Your task to perform on an android device: turn off data saver in the chrome app Image 0: 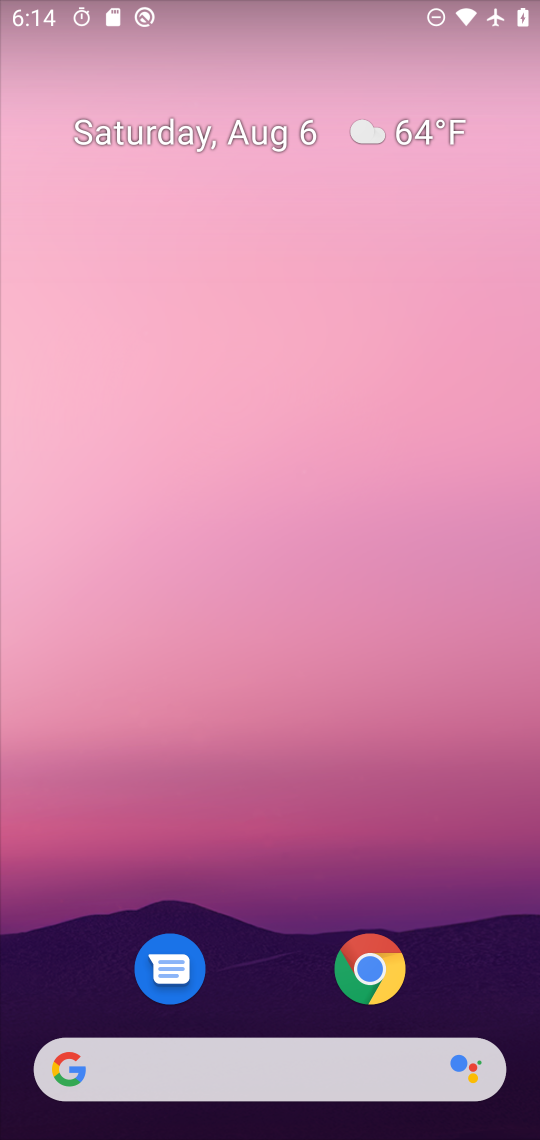
Step 0: press home button
Your task to perform on an android device: turn off data saver in the chrome app Image 1: 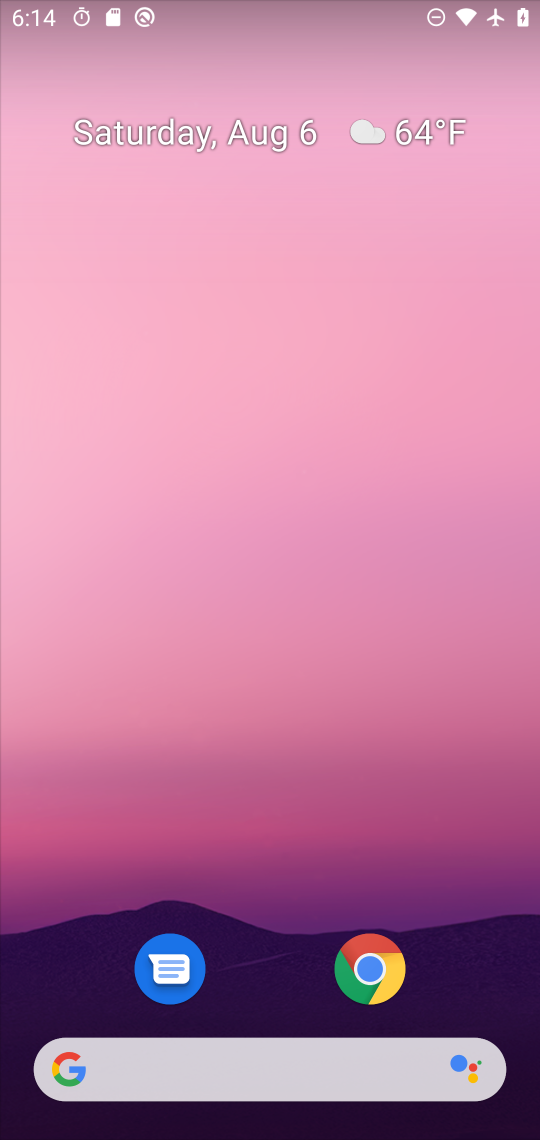
Step 1: drag from (285, 937) to (196, 210)
Your task to perform on an android device: turn off data saver in the chrome app Image 2: 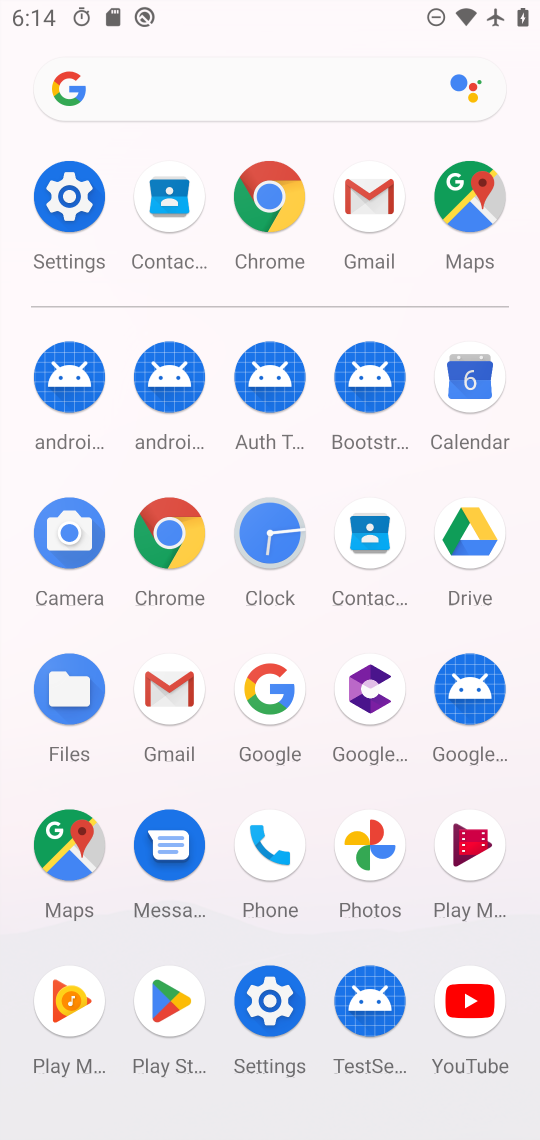
Step 2: click (260, 222)
Your task to perform on an android device: turn off data saver in the chrome app Image 3: 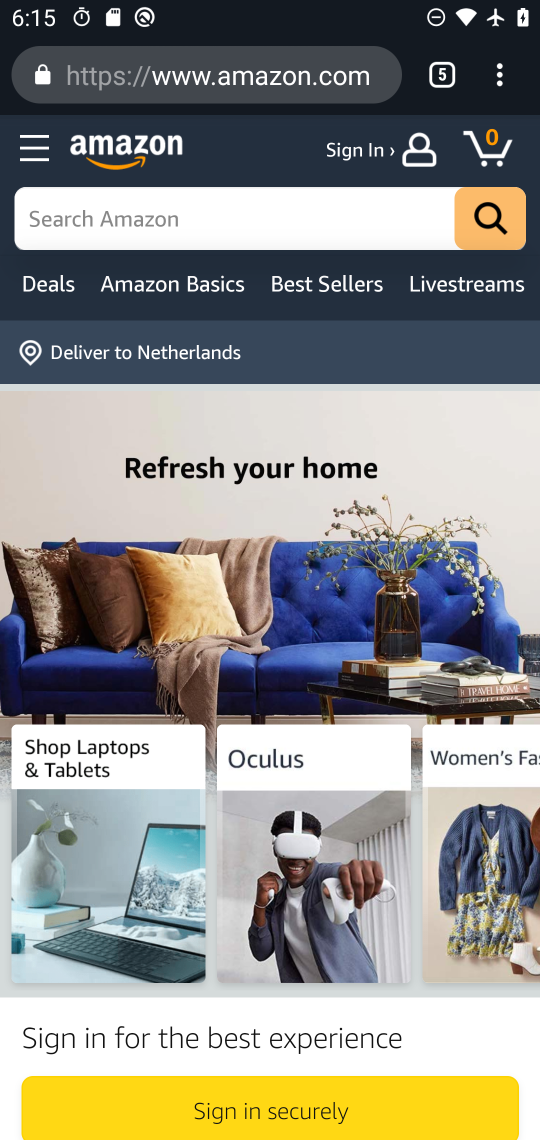
Step 3: drag from (511, 88) to (295, 988)
Your task to perform on an android device: turn off data saver in the chrome app Image 4: 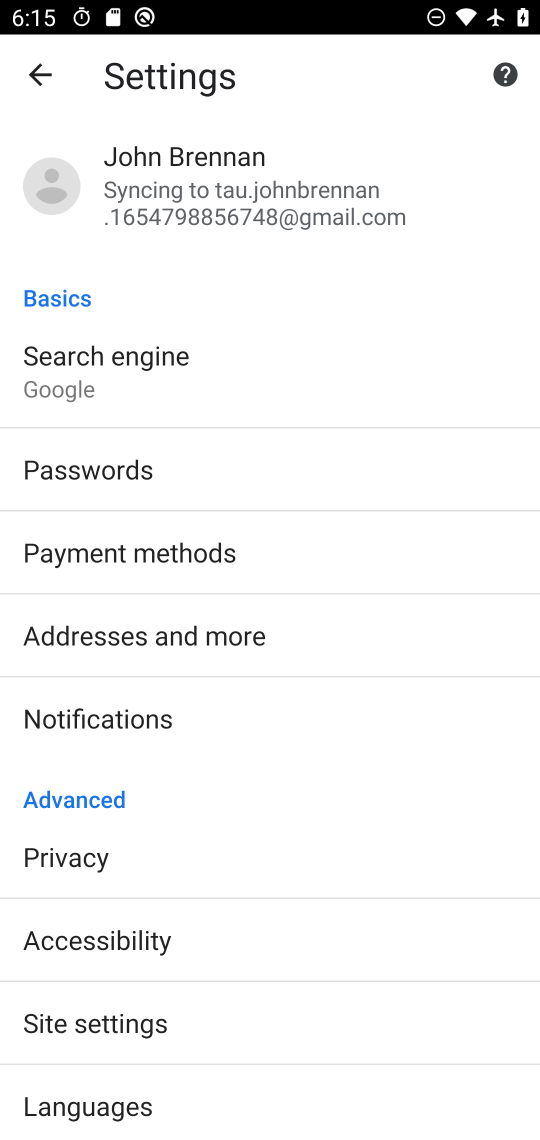
Step 4: drag from (246, 1020) to (184, 530)
Your task to perform on an android device: turn off data saver in the chrome app Image 5: 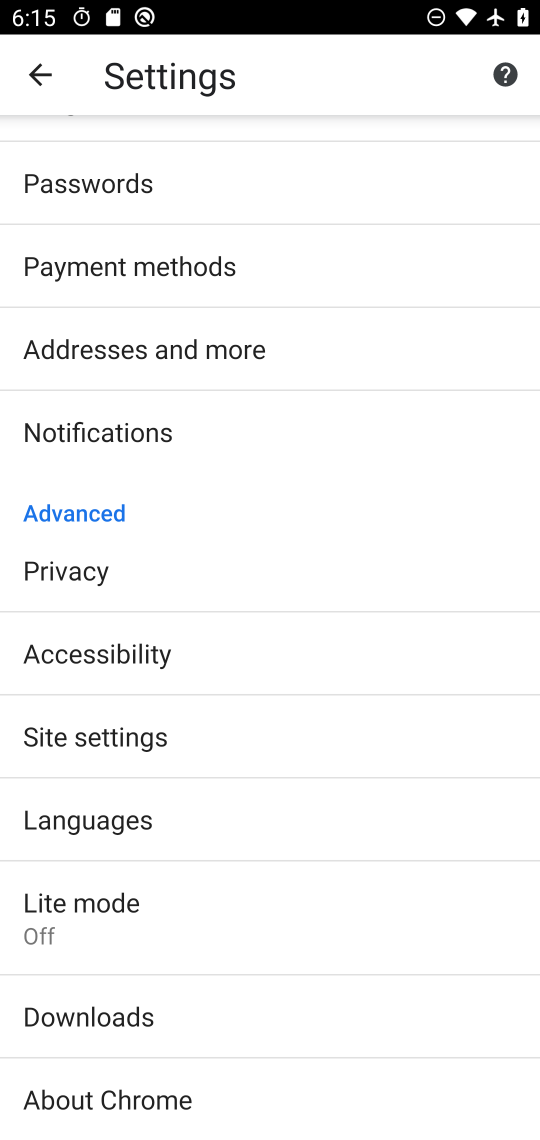
Step 5: click (63, 913)
Your task to perform on an android device: turn off data saver in the chrome app Image 6: 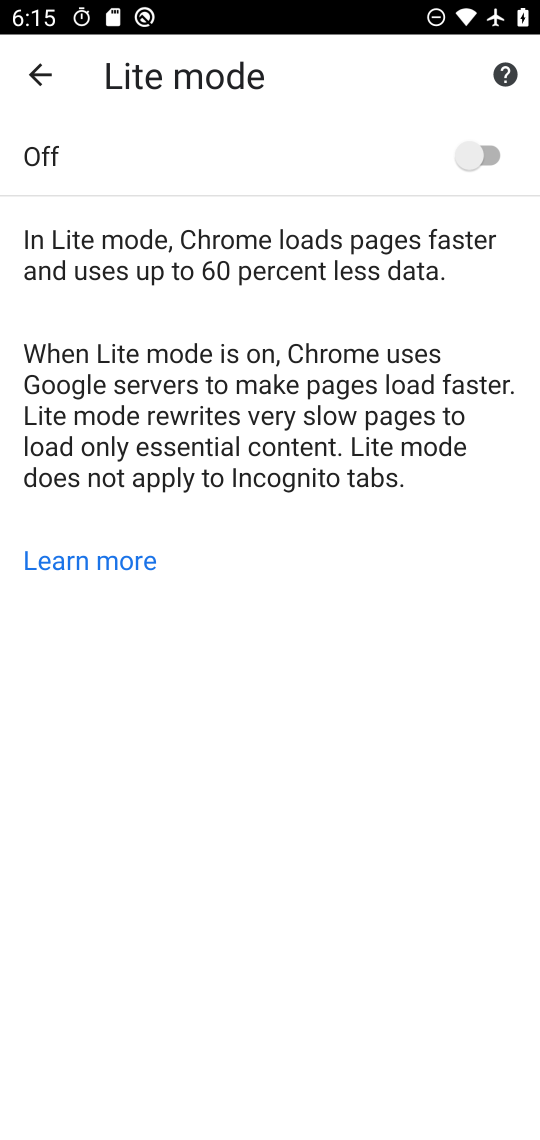
Step 6: task complete